Your task to perform on an android device: Open calendar and show me the second week of next month Image 0: 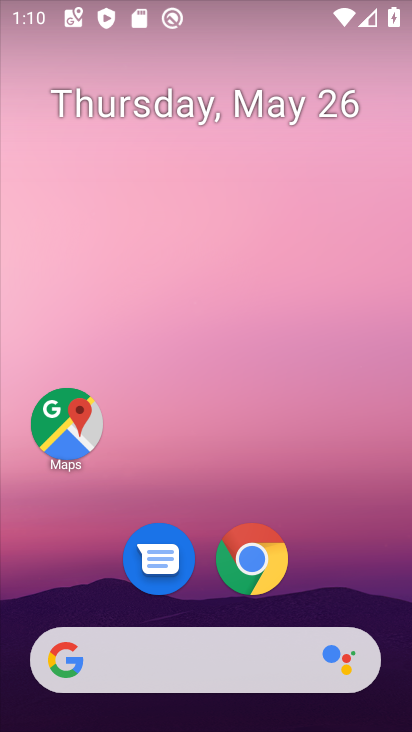
Step 0: drag from (226, 638) to (227, 4)
Your task to perform on an android device: Open calendar and show me the second week of next month Image 1: 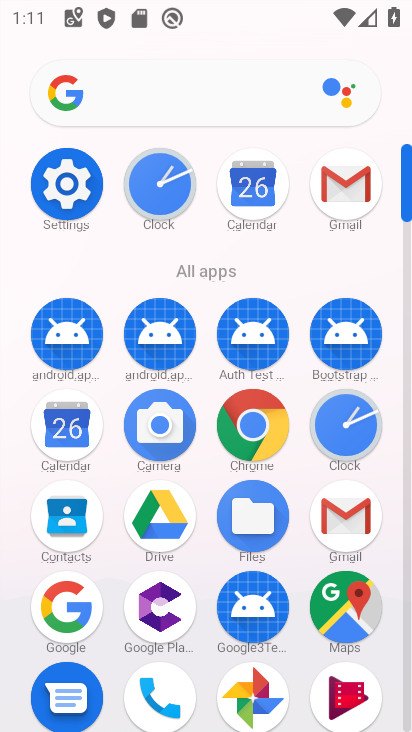
Step 1: click (65, 435)
Your task to perform on an android device: Open calendar and show me the second week of next month Image 2: 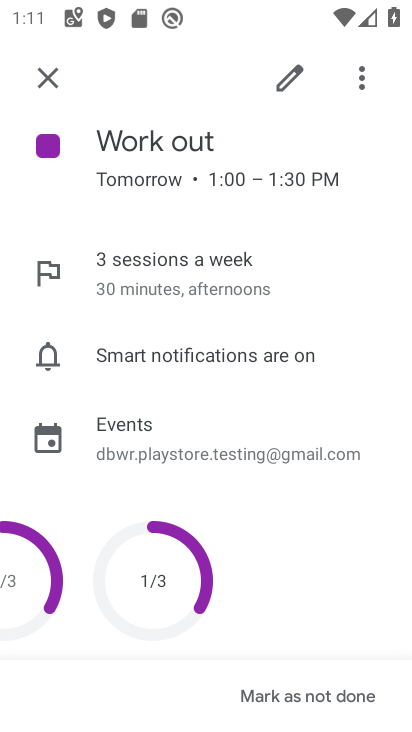
Step 2: click (53, 66)
Your task to perform on an android device: Open calendar and show me the second week of next month Image 3: 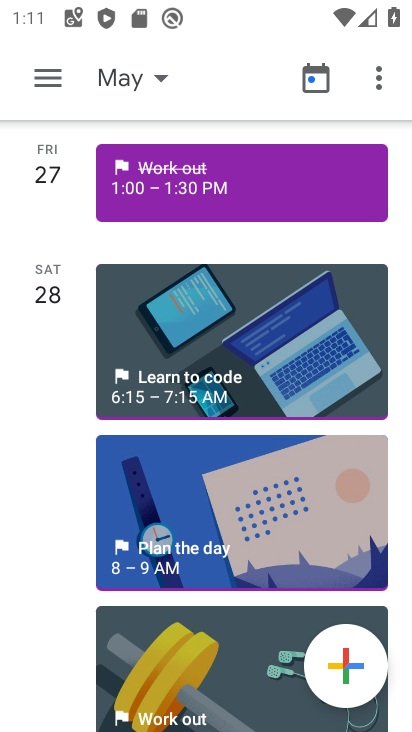
Step 3: click (116, 72)
Your task to perform on an android device: Open calendar and show me the second week of next month Image 4: 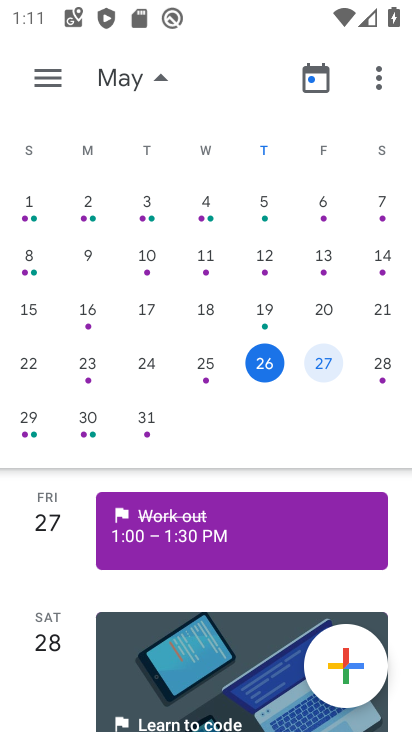
Step 4: drag from (359, 327) to (30, 327)
Your task to perform on an android device: Open calendar and show me the second week of next month Image 5: 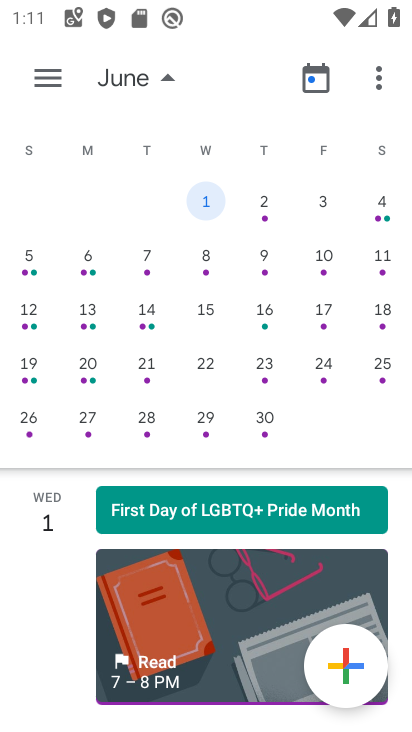
Step 5: click (31, 259)
Your task to perform on an android device: Open calendar and show me the second week of next month Image 6: 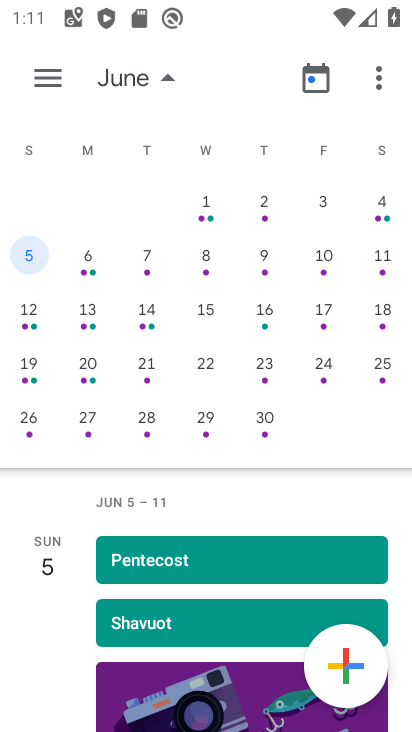
Step 6: click (55, 84)
Your task to perform on an android device: Open calendar and show me the second week of next month Image 7: 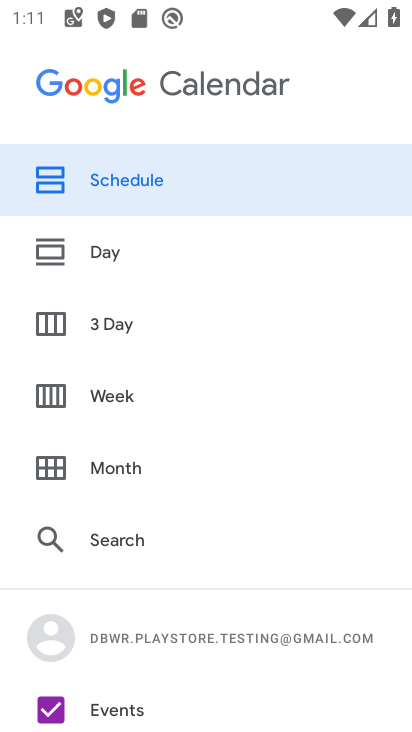
Step 7: click (109, 398)
Your task to perform on an android device: Open calendar and show me the second week of next month Image 8: 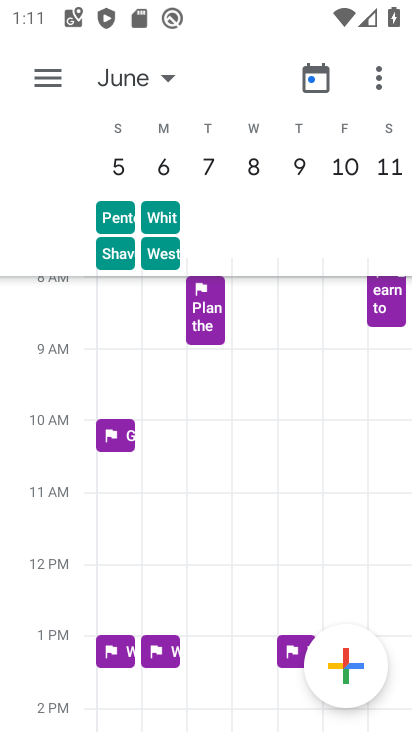
Step 8: task complete